Your task to perform on an android device: Go to notification settings Image 0: 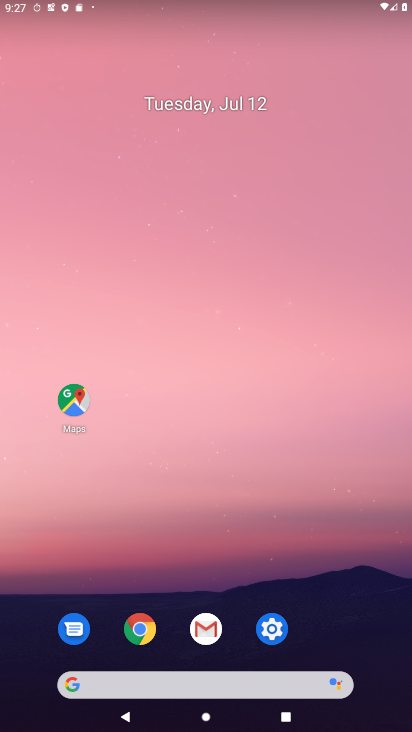
Step 0: click (271, 637)
Your task to perform on an android device: Go to notification settings Image 1: 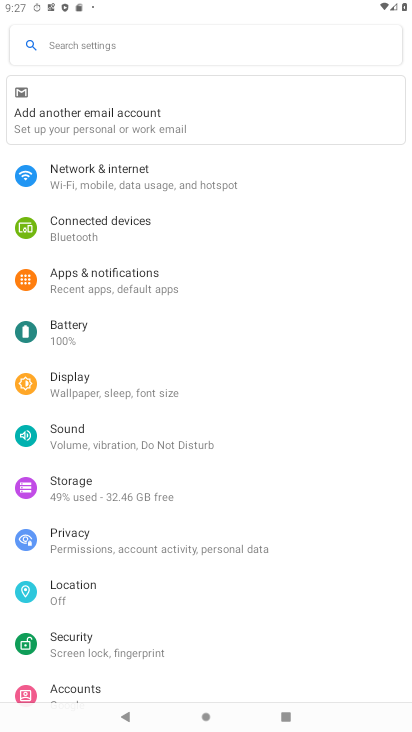
Step 1: click (171, 52)
Your task to perform on an android device: Go to notification settings Image 2: 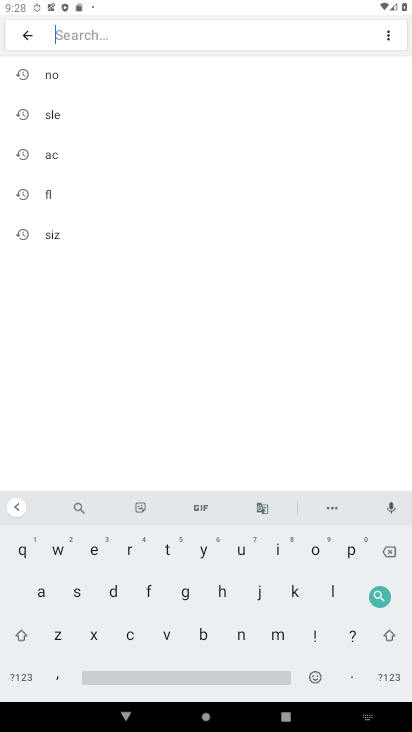
Step 2: click (84, 71)
Your task to perform on an android device: Go to notification settings Image 3: 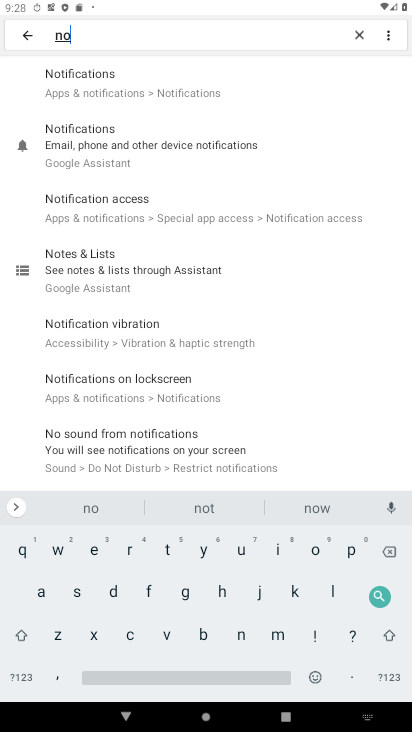
Step 3: click (95, 79)
Your task to perform on an android device: Go to notification settings Image 4: 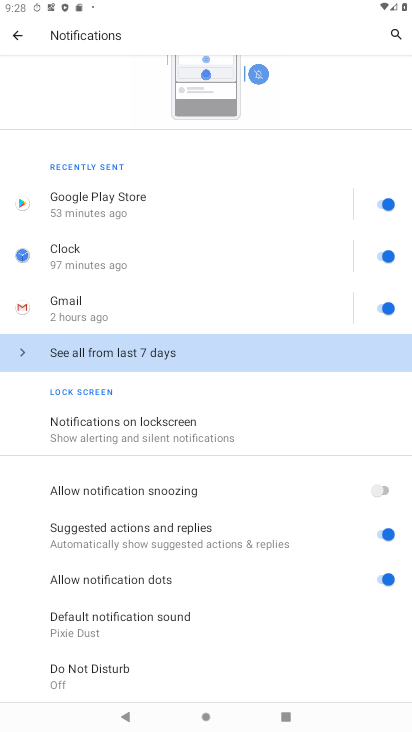
Step 4: click (109, 420)
Your task to perform on an android device: Go to notification settings Image 5: 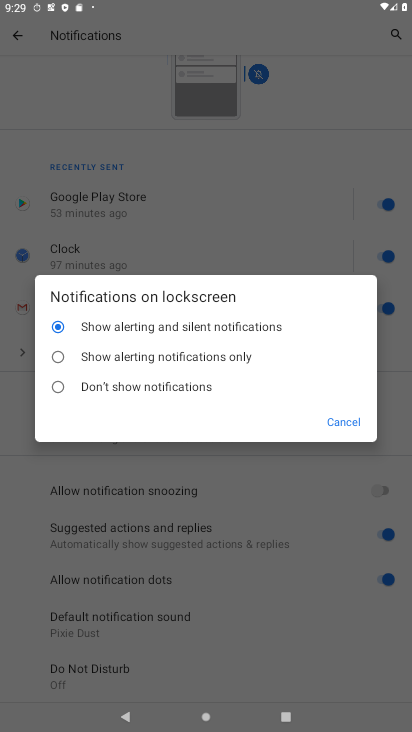
Step 5: task complete